Your task to perform on an android device: Do I have any events this weekend? Image 0: 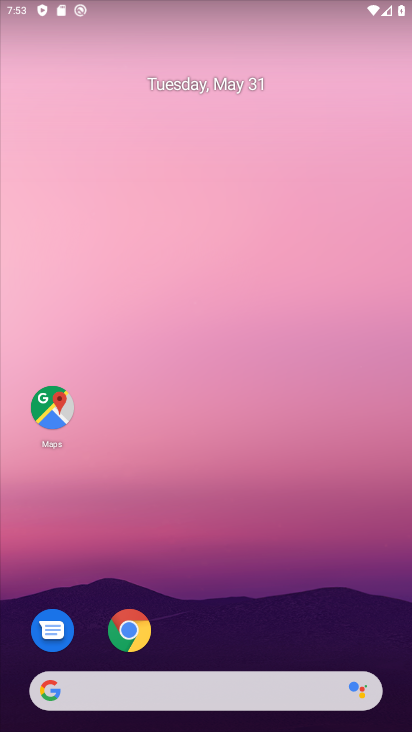
Step 0: drag from (194, 616) to (205, 315)
Your task to perform on an android device: Do I have any events this weekend? Image 1: 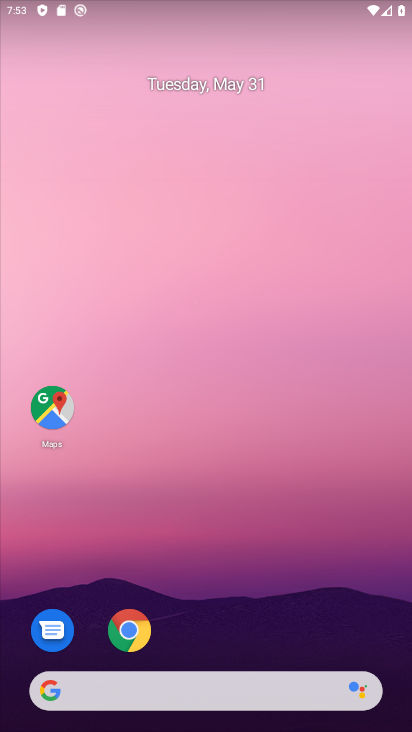
Step 1: drag from (194, 644) to (239, 197)
Your task to perform on an android device: Do I have any events this weekend? Image 2: 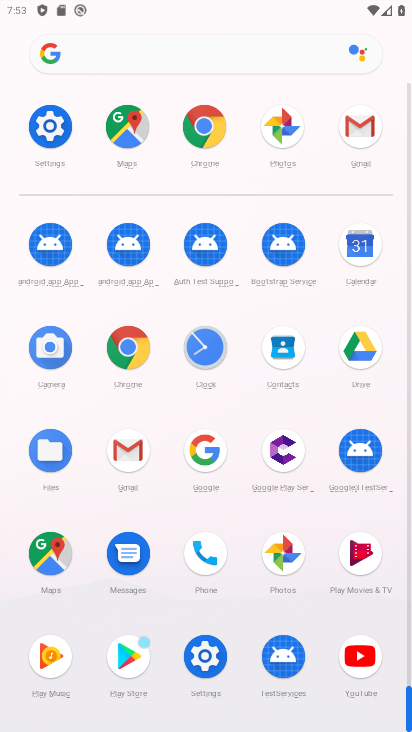
Step 2: click (367, 238)
Your task to perform on an android device: Do I have any events this weekend? Image 3: 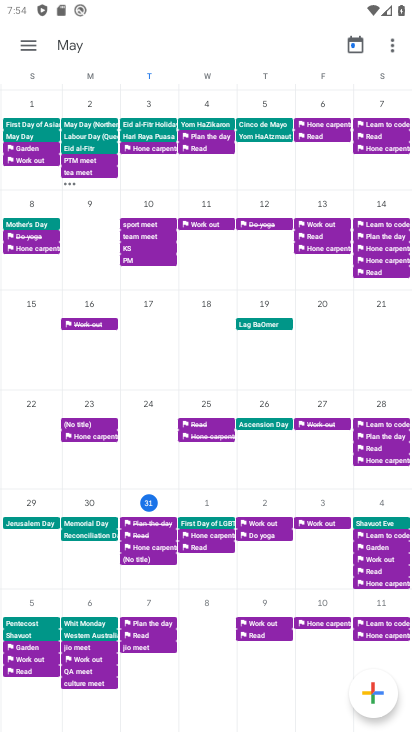
Step 3: click (25, 41)
Your task to perform on an android device: Do I have any events this weekend? Image 4: 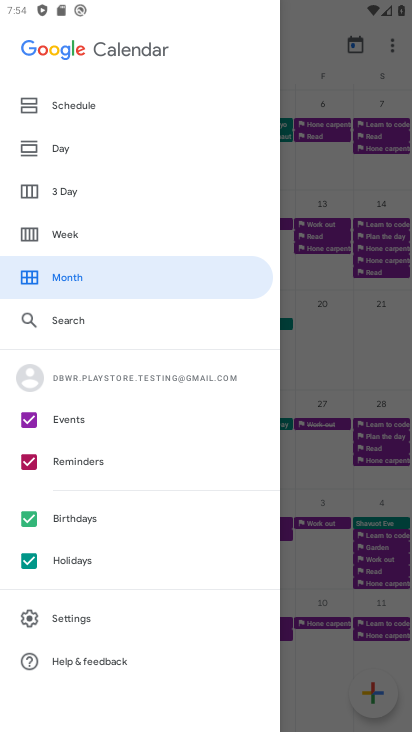
Step 4: click (351, 206)
Your task to perform on an android device: Do I have any events this weekend? Image 5: 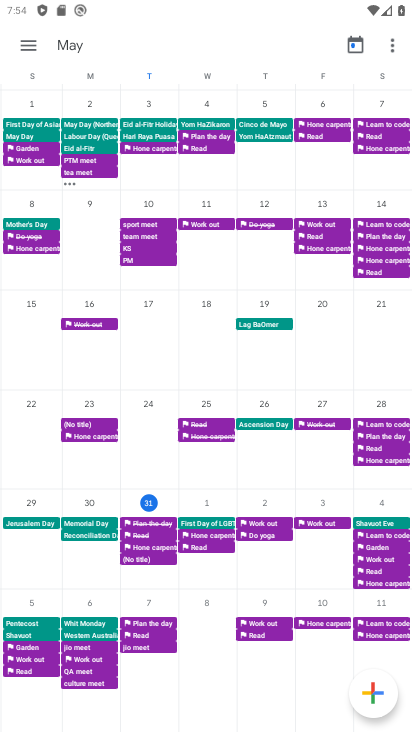
Step 5: drag from (365, 254) to (1, 109)
Your task to perform on an android device: Do I have any events this weekend? Image 6: 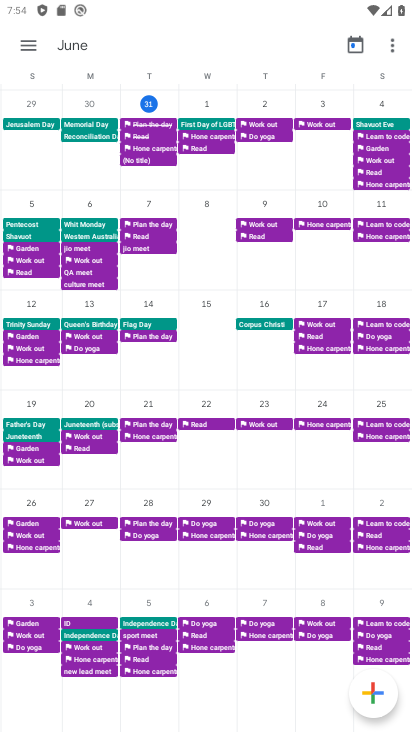
Step 6: click (25, 38)
Your task to perform on an android device: Do I have any events this weekend? Image 7: 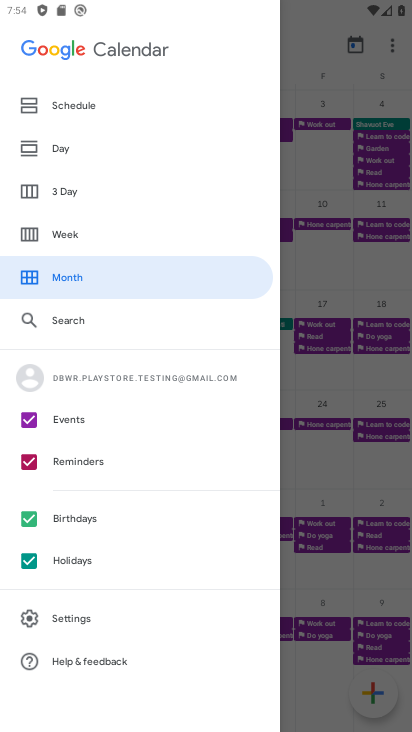
Step 7: click (92, 221)
Your task to perform on an android device: Do I have any events this weekend? Image 8: 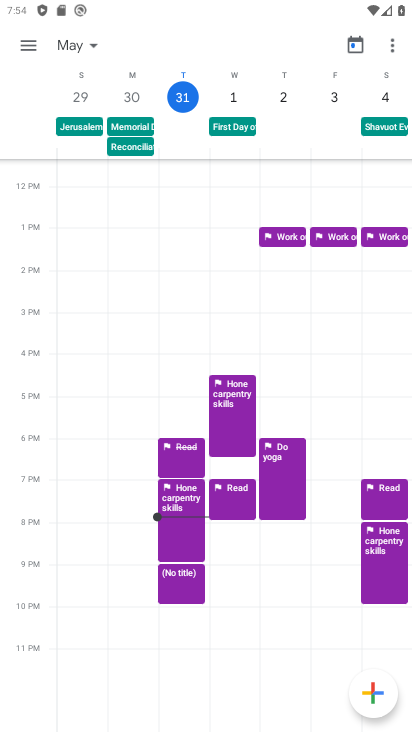
Step 8: drag from (343, 259) to (258, 259)
Your task to perform on an android device: Do I have any events this weekend? Image 9: 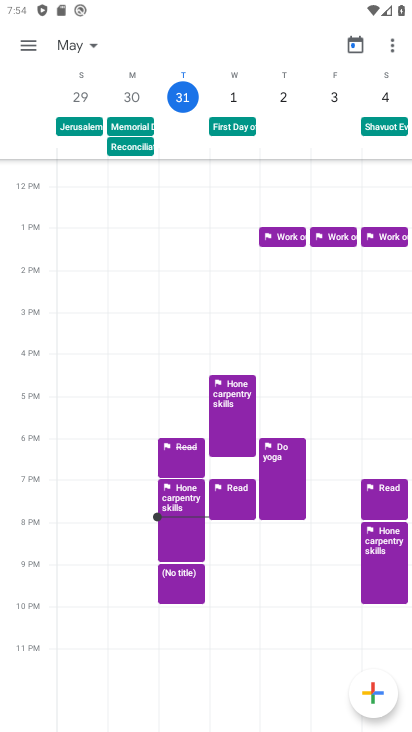
Step 9: click (239, 104)
Your task to perform on an android device: Do I have any events this weekend? Image 10: 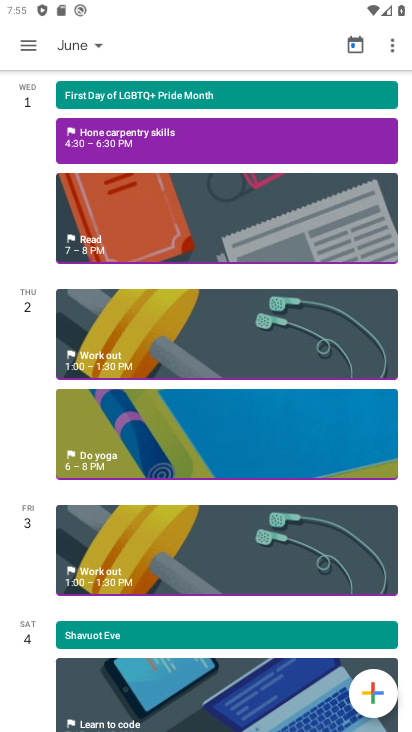
Step 10: task complete